Your task to perform on an android device: allow cookies in the chrome app Image 0: 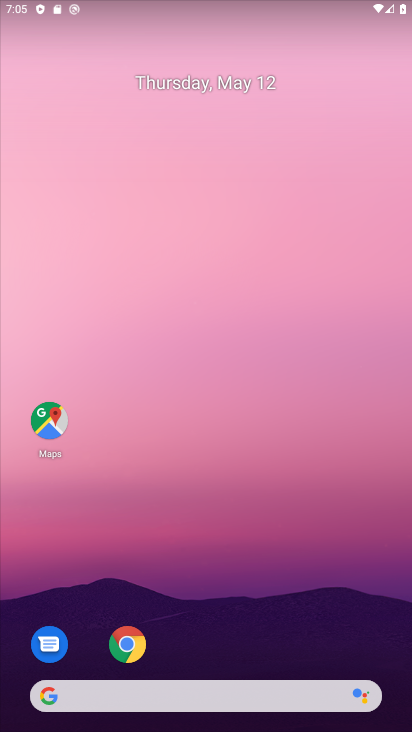
Step 0: drag from (238, 710) to (198, 186)
Your task to perform on an android device: allow cookies in the chrome app Image 1: 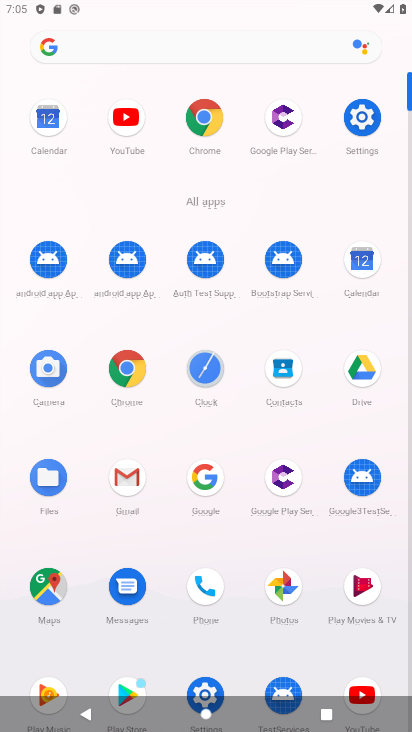
Step 1: click (133, 372)
Your task to perform on an android device: allow cookies in the chrome app Image 2: 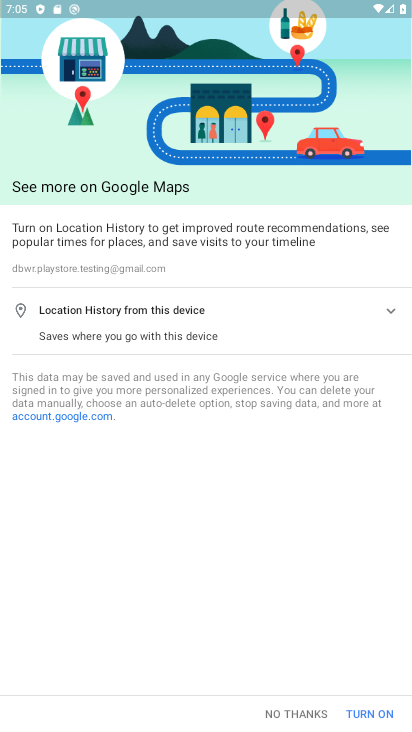
Step 2: click (318, 709)
Your task to perform on an android device: allow cookies in the chrome app Image 3: 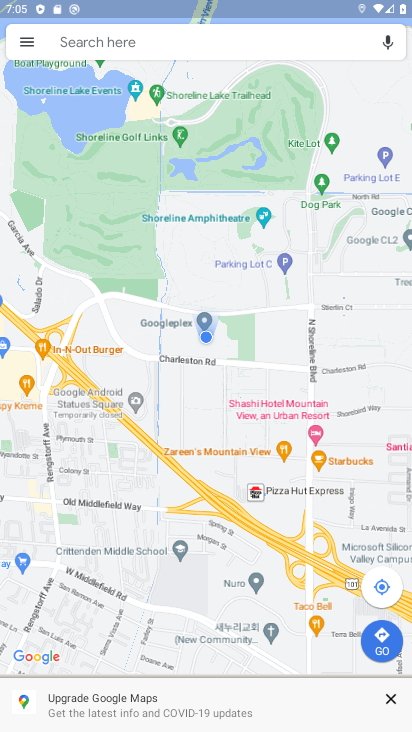
Step 3: press home button
Your task to perform on an android device: allow cookies in the chrome app Image 4: 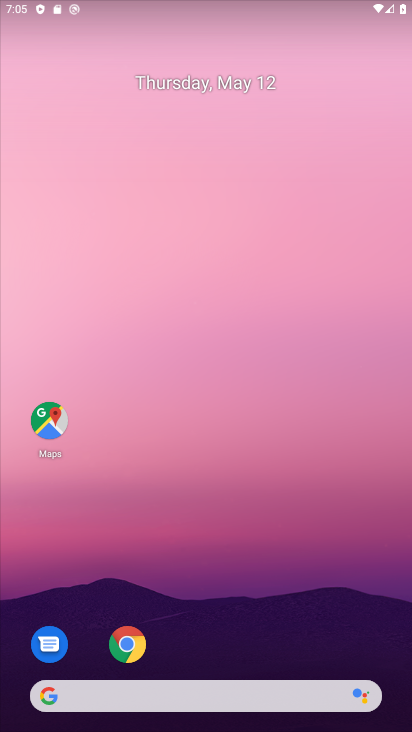
Step 4: drag from (278, 669) to (192, 162)
Your task to perform on an android device: allow cookies in the chrome app Image 5: 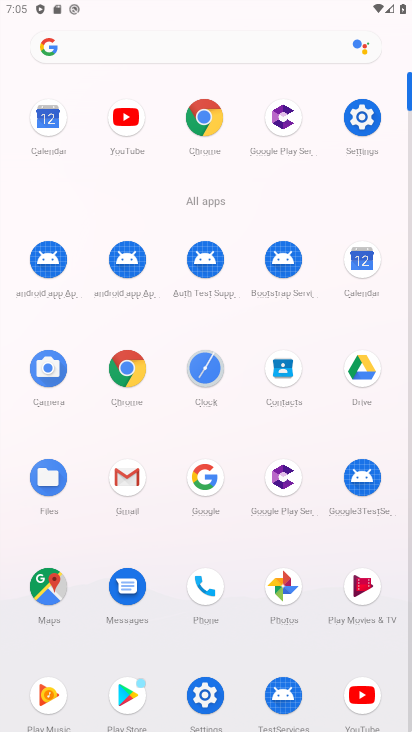
Step 5: click (194, 120)
Your task to perform on an android device: allow cookies in the chrome app Image 6: 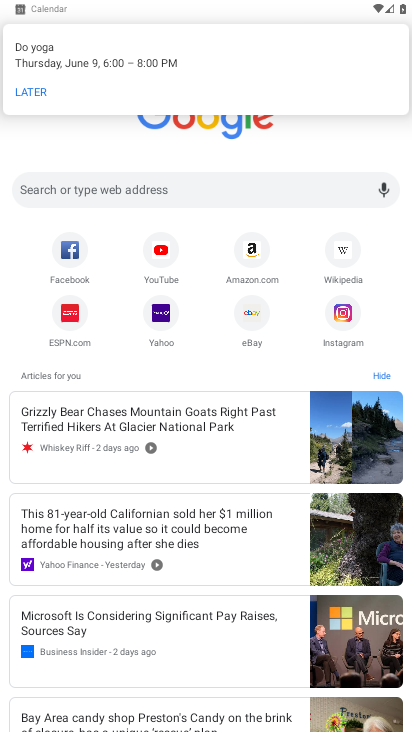
Step 6: click (38, 84)
Your task to perform on an android device: allow cookies in the chrome app Image 7: 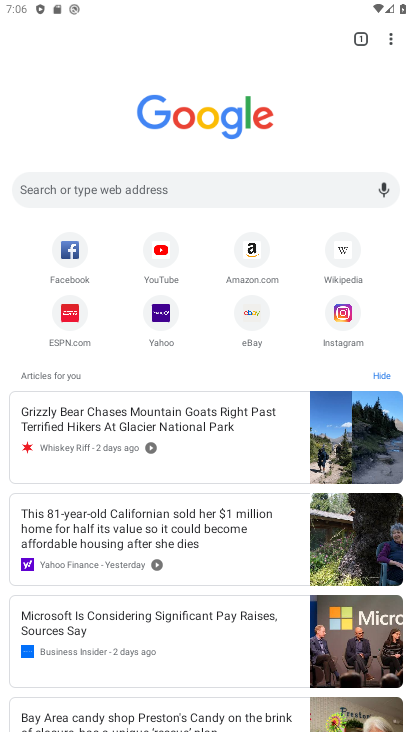
Step 7: click (391, 53)
Your task to perform on an android device: allow cookies in the chrome app Image 8: 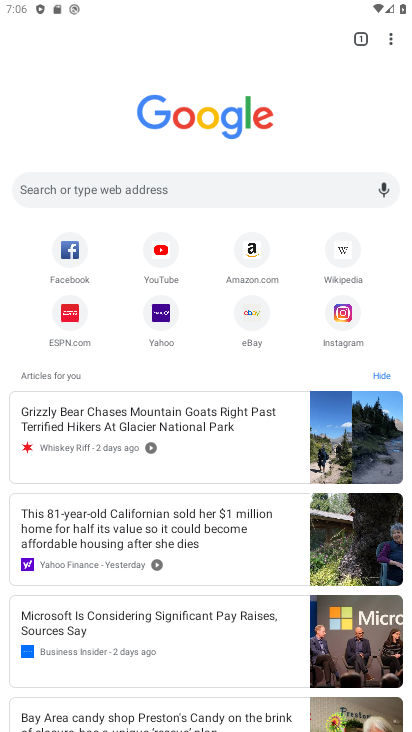
Step 8: click (389, 49)
Your task to perform on an android device: allow cookies in the chrome app Image 9: 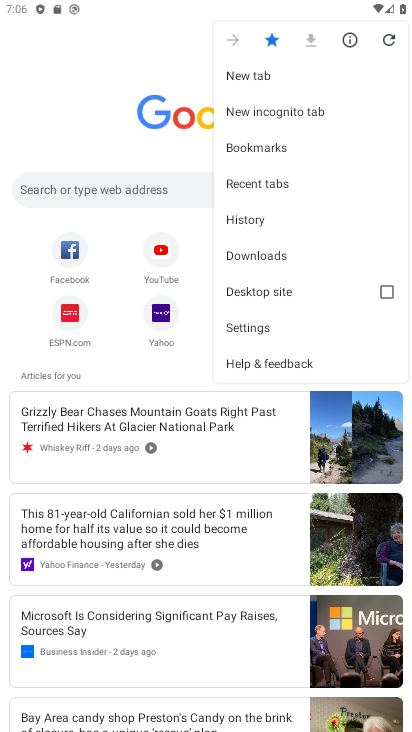
Step 9: click (264, 321)
Your task to perform on an android device: allow cookies in the chrome app Image 10: 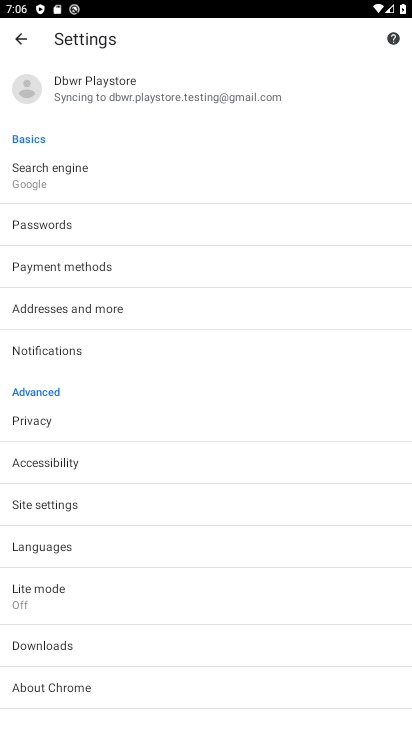
Step 10: click (76, 506)
Your task to perform on an android device: allow cookies in the chrome app Image 11: 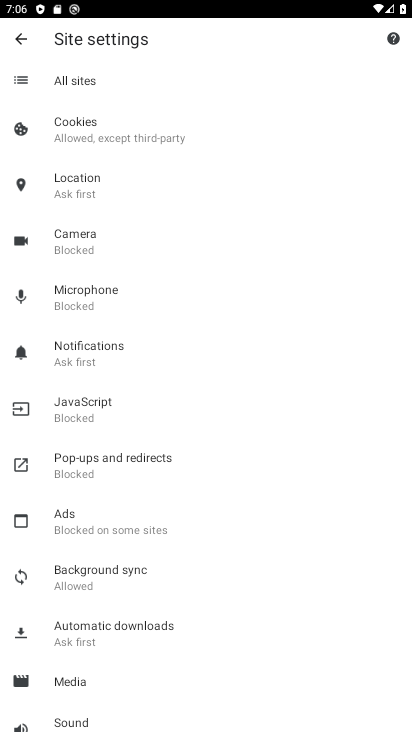
Step 11: click (99, 121)
Your task to perform on an android device: allow cookies in the chrome app Image 12: 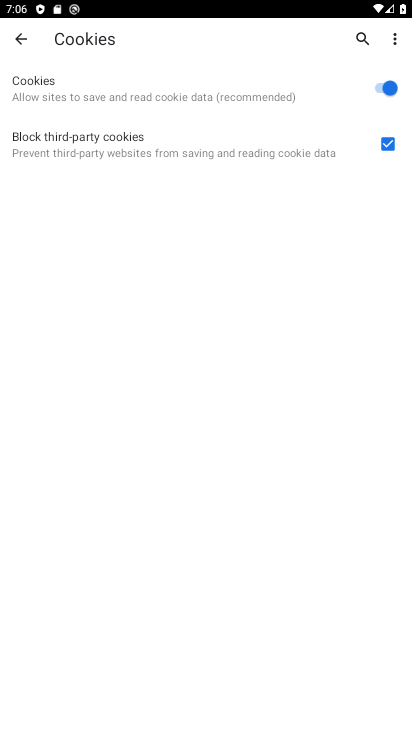
Step 12: task complete